Your task to perform on an android device: What time is it in New York? Image 0: 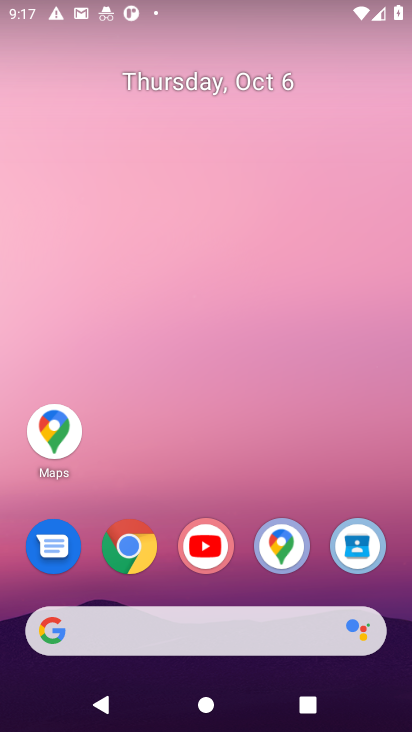
Step 0: click (140, 552)
Your task to perform on an android device: What time is it in New York? Image 1: 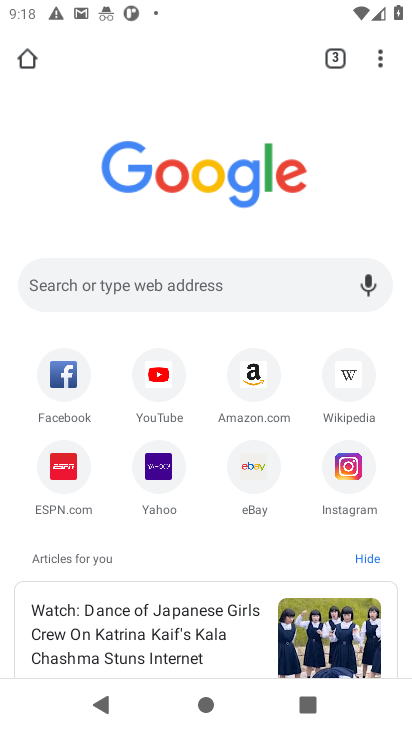
Step 1: click (135, 281)
Your task to perform on an android device: What time is it in New York? Image 2: 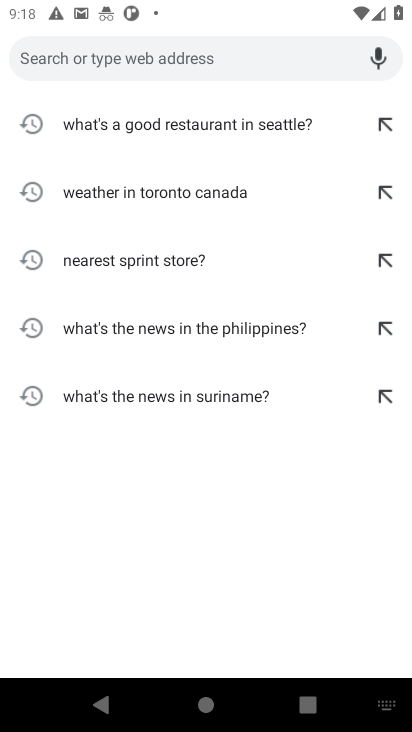
Step 2: type "time in new york?"
Your task to perform on an android device: What time is it in New York? Image 3: 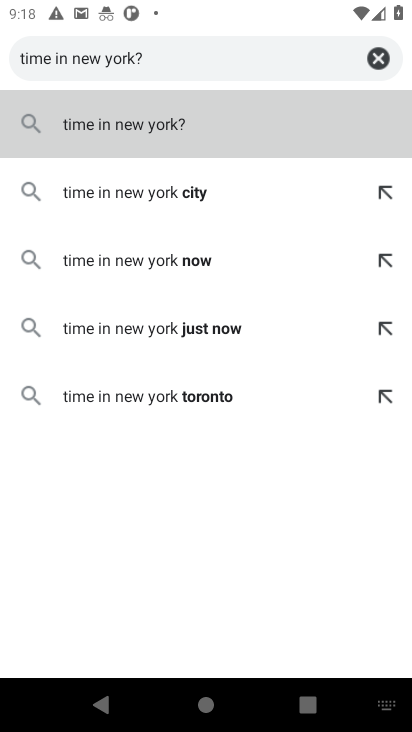
Step 3: click (102, 115)
Your task to perform on an android device: What time is it in New York? Image 4: 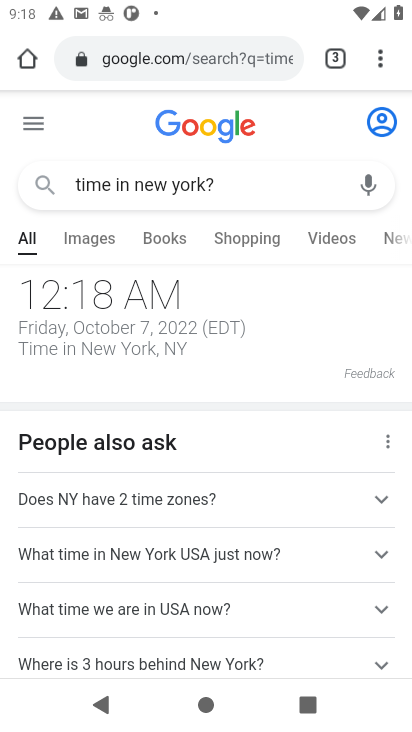
Step 4: task complete